Your task to perform on an android device: Search for seafood restaurants on Google Maps Image 0: 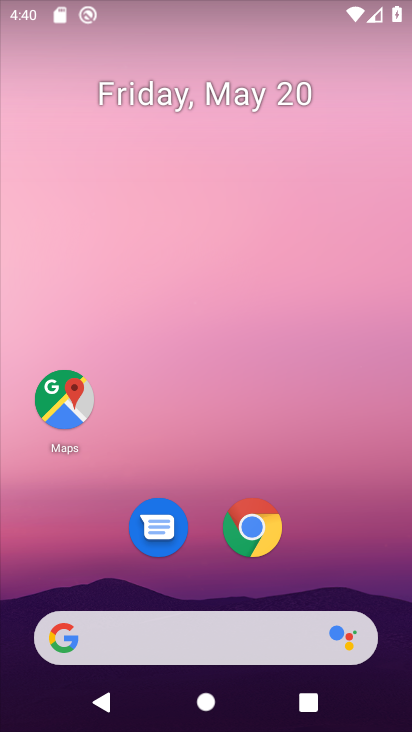
Step 0: click (62, 403)
Your task to perform on an android device: Search for seafood restaurants on Google Maps Image 1: 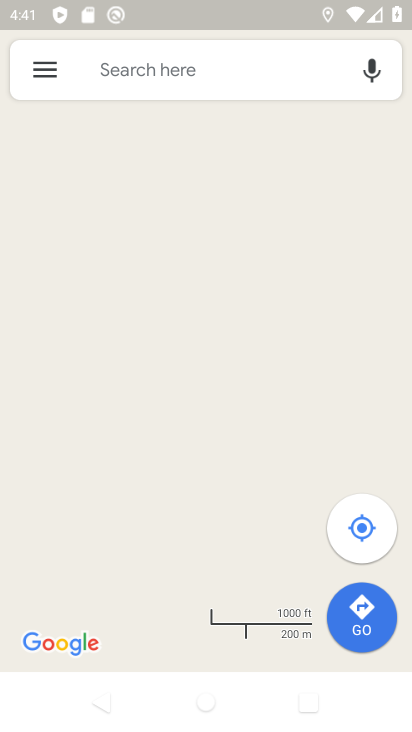
Step 1: click (161, 62)
Your task to perform on an android device: Search for seafood restaurants on Google Maps Image 2: 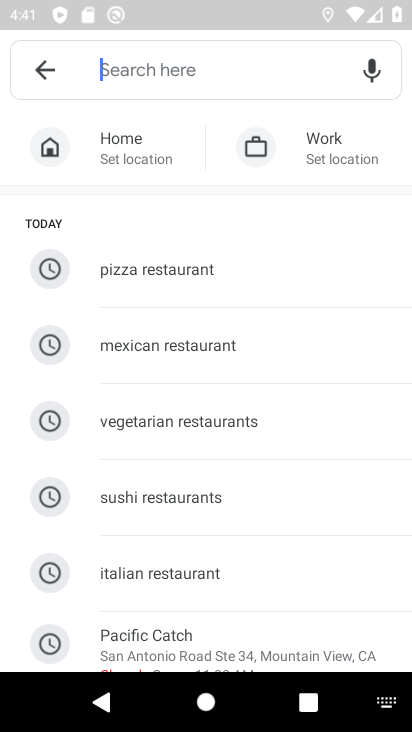
Step 2: drag from (155, 609) to (141, 258)
Your task to perform on an android device: Search for seafood restaurants on Google Maps Image 3: 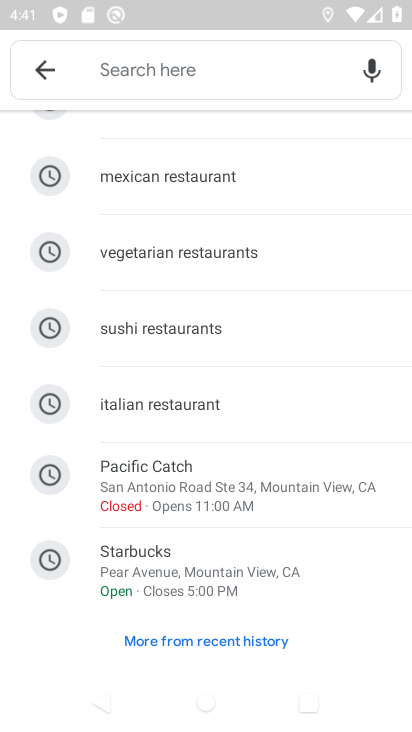
Step 3: drag from (183, 603) to (169, 305)
Your task to perform on an android device: Search for seafood restaurants on Google Maps Image 4: 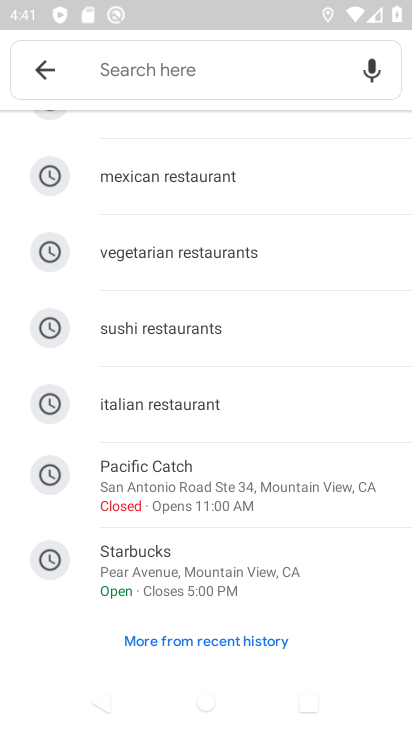
Step 4: click (174, 643)
Your task to perform on an android device: Search for seafood restaurants on Google Maps Image 5: 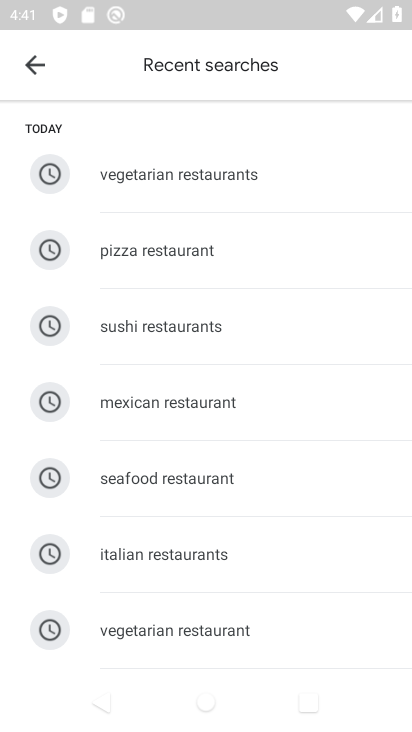
Step 5: click (138, 484)
Your task to perform on an android device: Search for seafood restaurants on Google Maps Image 6: 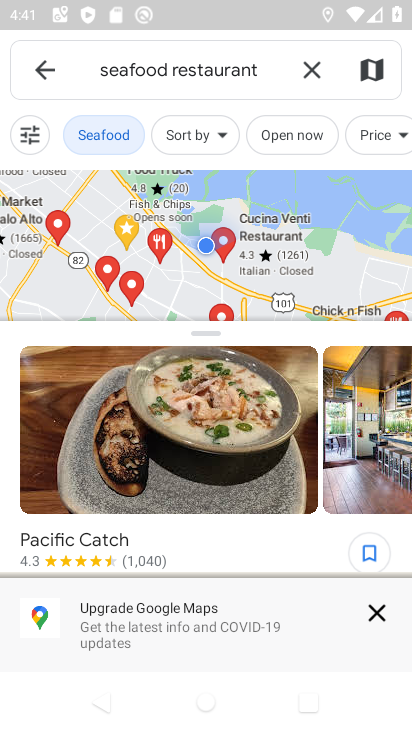
Step 6: task complete